Your task to perform on an android device: Go to network settings Image 0: 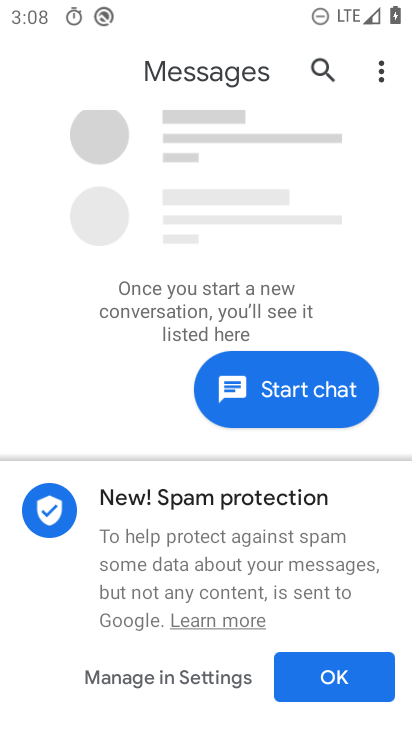
Step 0: press back button
Your task to perform on an android device: Go to network settings Image 1: 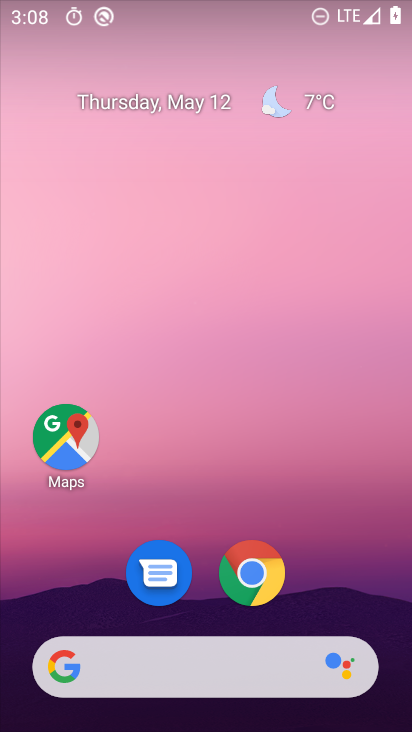
Step 1: drag from (358, 584) to (274, 252)
Your task to perform on an android device: Go to network settings Image 2: 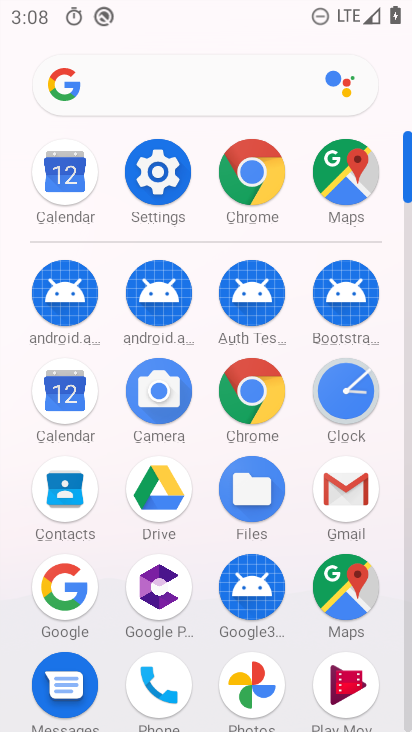
Step 2: click (148, 176)
Your task to perform on an android device: Go to network settings Image 3: 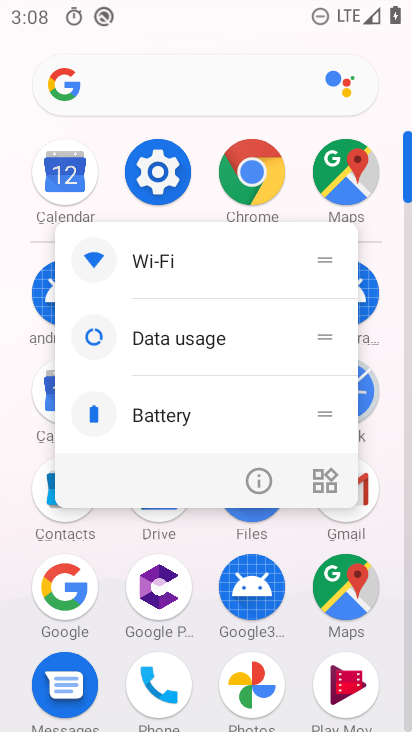
Step 3: click (152, 175)
Your task to perform on an android device: Go to network settings Image 4: 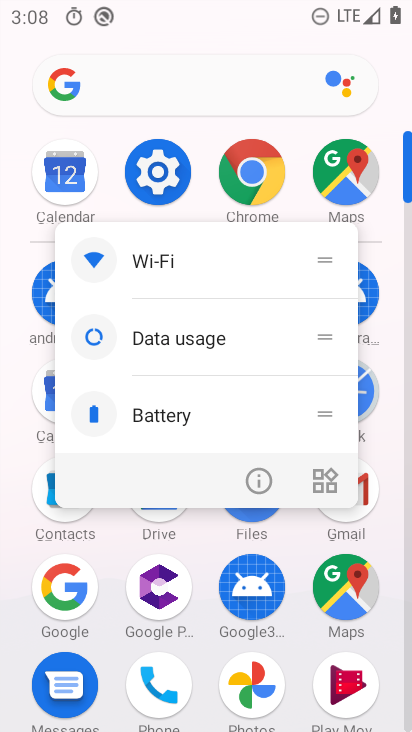
Step 4: click (149, 168)
Your task to perform on an android device: Go to network settings Image 5: 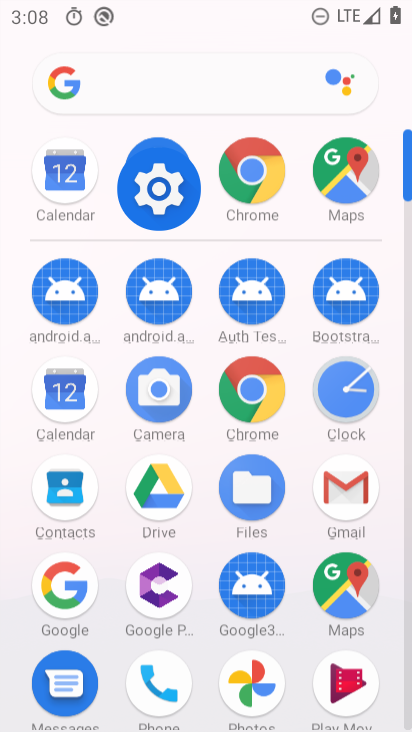
Step 5: click (146, 169)
Your task to perform on an android device: Go to network settings Image 6: 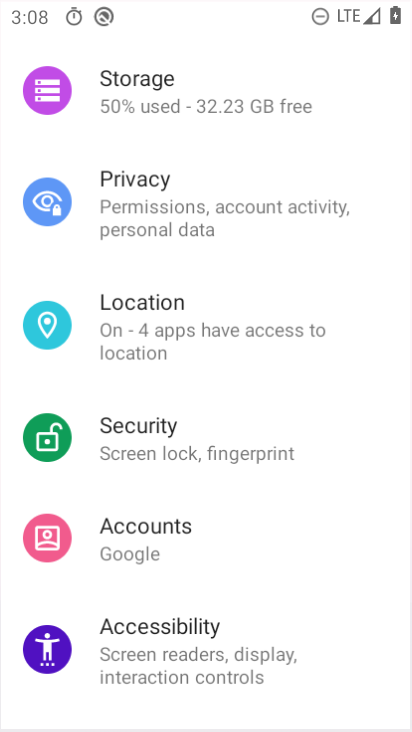
Step 6: click (146, 169)
Your task to perform on an android device: Go to network settings Image 7: 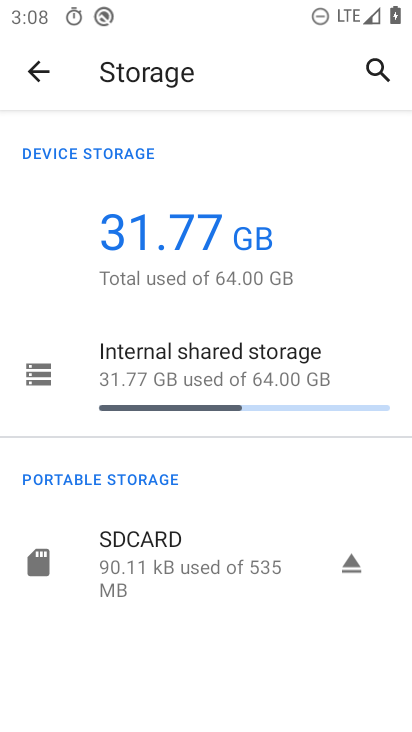
Step 7: click (30, 74)
Your task to perform on an android device: Go to network settings Image 8: 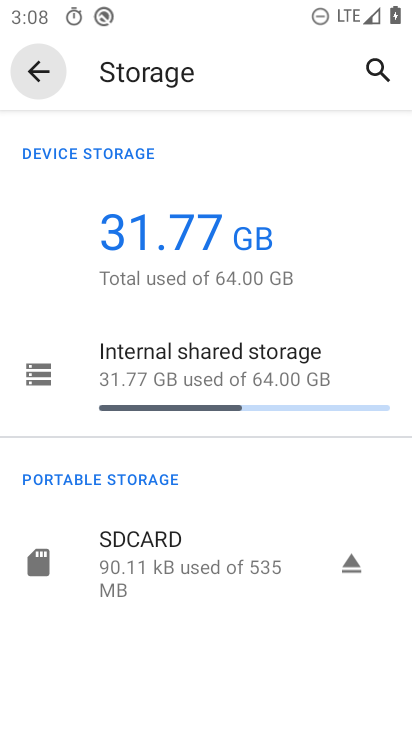
Step 8: click (30, 74)
Your task to perform on an android device: Go to network settings Image 9: 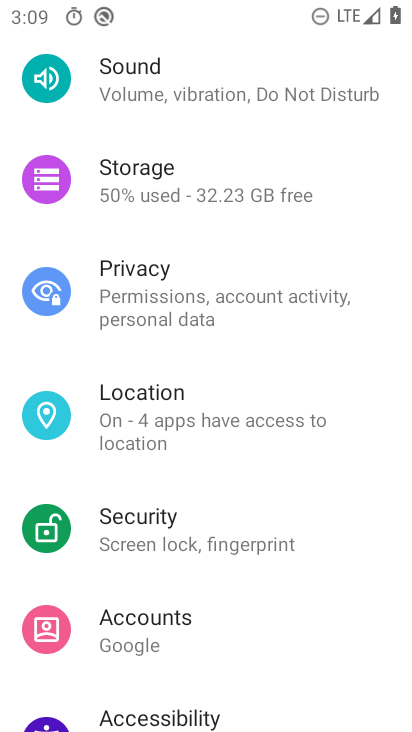
Step 9: drag from (153, 164) to (253, 467)
Your task to perform on an android device: Go to network settings Image 10: 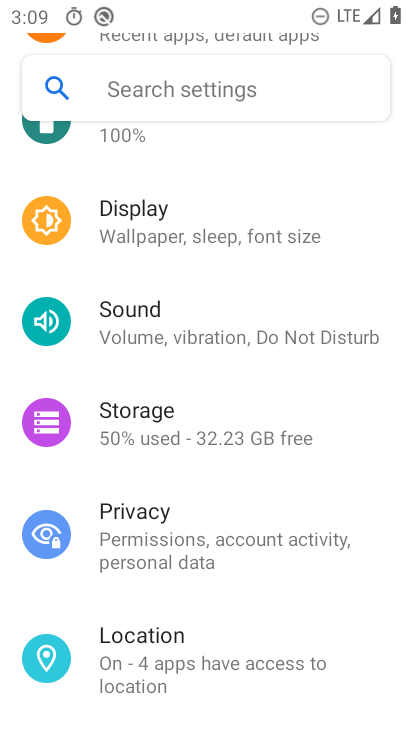
Step 10: drag from (188, 297) to (221, 527)
Your task to perform on an android device: Go to network settings Image 11: 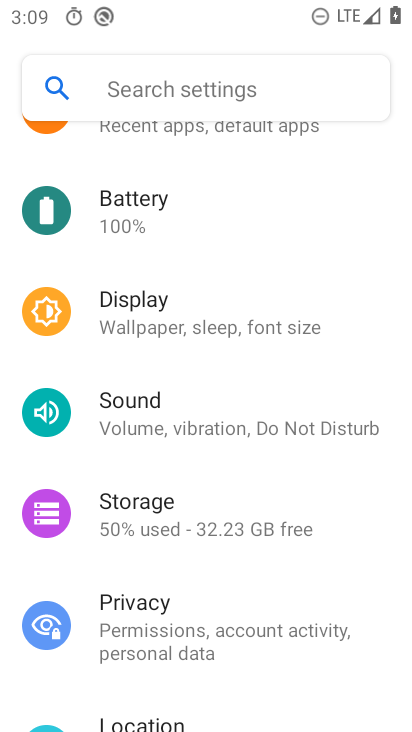
Step 11: drag from (214, 276) to (247, 555)
Your task to perform on an android device: Go to network settings Image 12: 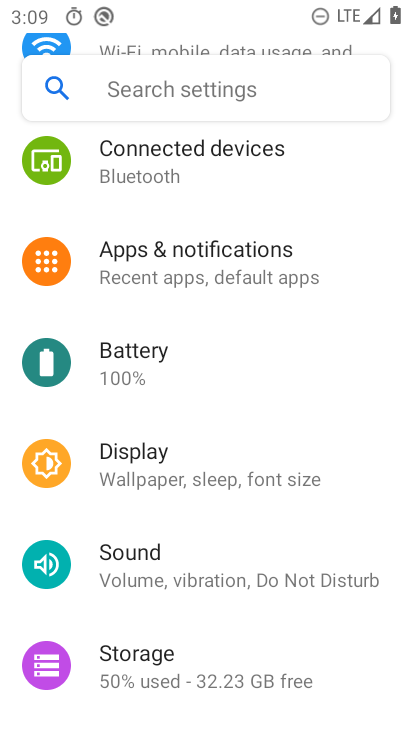
Step 12: drag from (150, 254) to (217, 591)
Your task to perform on an android device: Go to network settings Image 13: 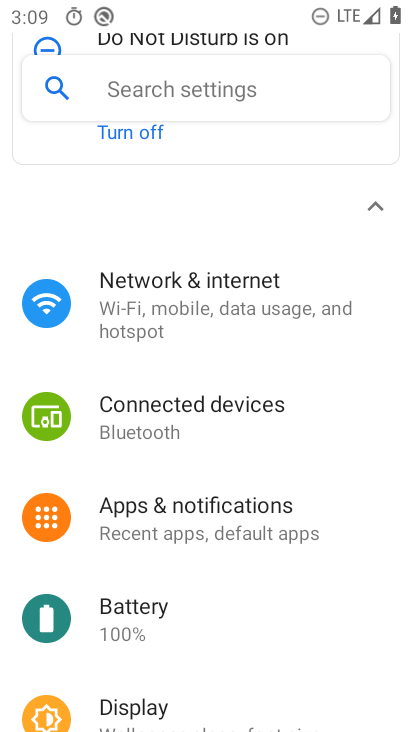
Step 13: drag from (154, 320) to (213, 618)
Your task to perform on an android device: Go to network settings Image 14: 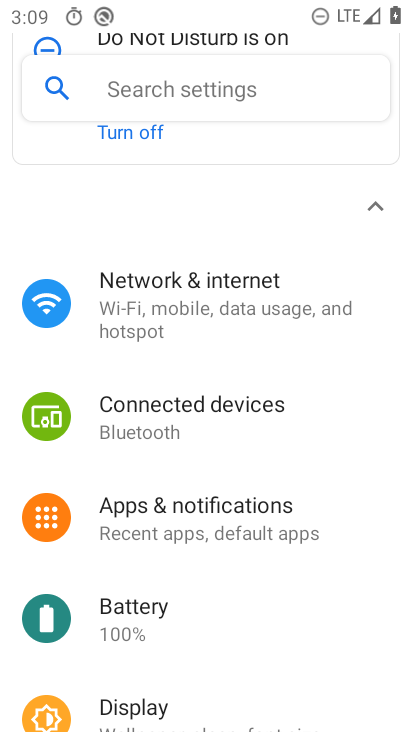
Step 14: click (171, 301)
Your task to perform on an android device: Go to network settings Image 15: 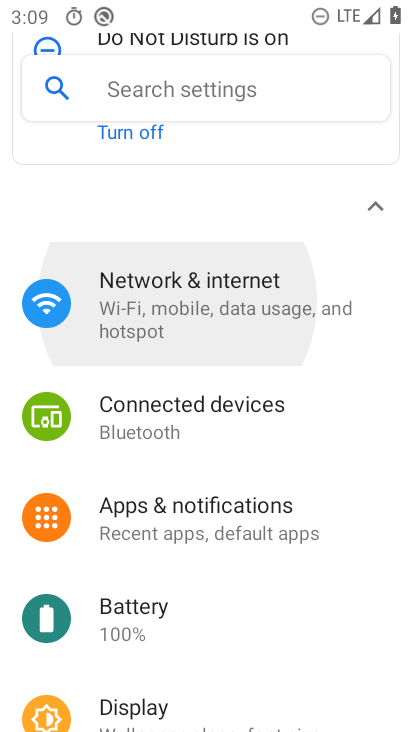
Step 15: click (171, 301)
Your task to perform on an android device: Go to network settings Image 16: 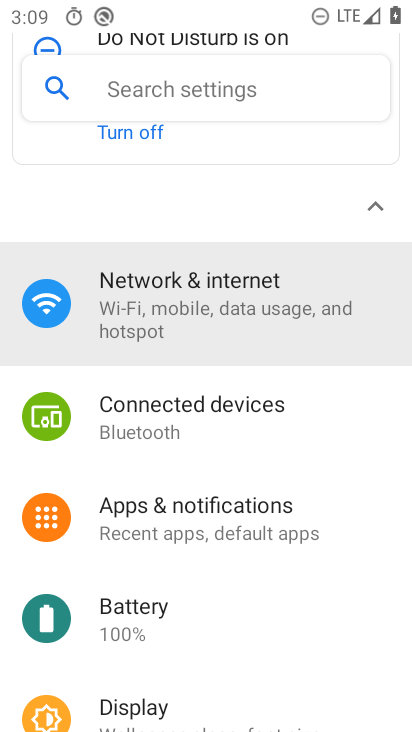
Step 16: click (171, 301)
Your task to perform on an android device: Go to network settings Image 17: 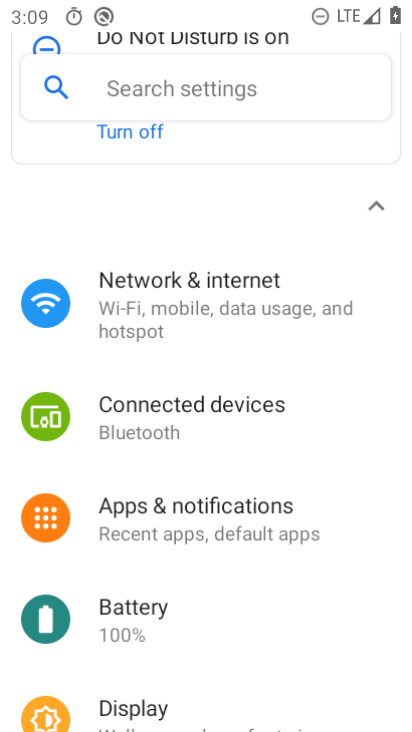
Step 17: click (171, 301)
Your task to perform on an android device: Go to network settings Image 18: 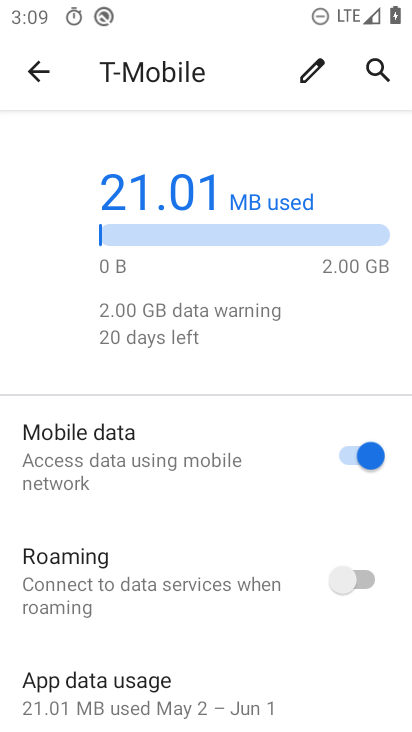
Step 18: click (38, 65)
Your task to perform on an android device: Go to network settings Image 19: 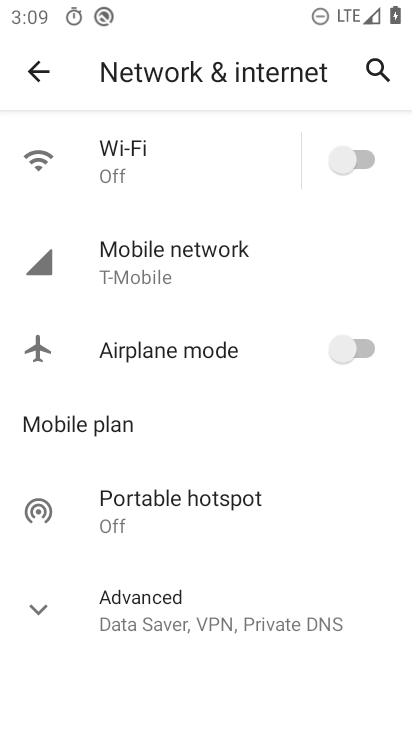
Step 19: task complete